Your task to perform on an android device: Search for "razer blackwidow" on ebay.com, select the first entry, and add it to the cart. Image 0: 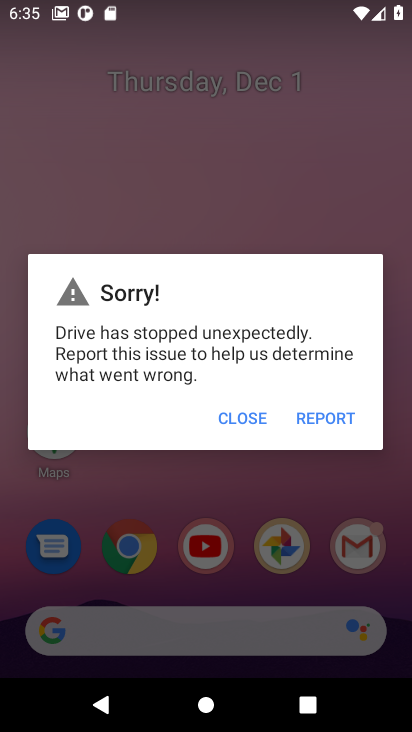
Step 0: press home button
Your task to perform on an android device: Search for "razer blackwidow" on ebay.com, select the first entry, and add it to the cart. Image 1: 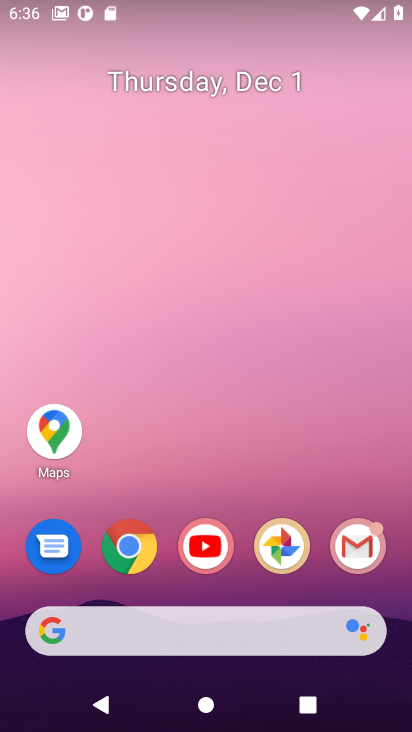
Step 1: click (132, 550)
Your task to perform on an android device: Search for "razer blackwidow" on ebay.com, select the first entry, and add it to the cart. Image 2: 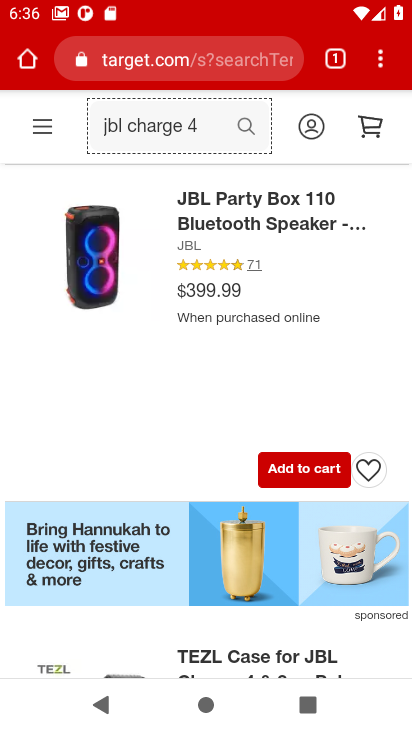
Step 2: click (171, 56)
Your task to perform on an android device: Search for "razer blackwidow" on ebay.com, select the first entry, and add it to the cart. Image 3: 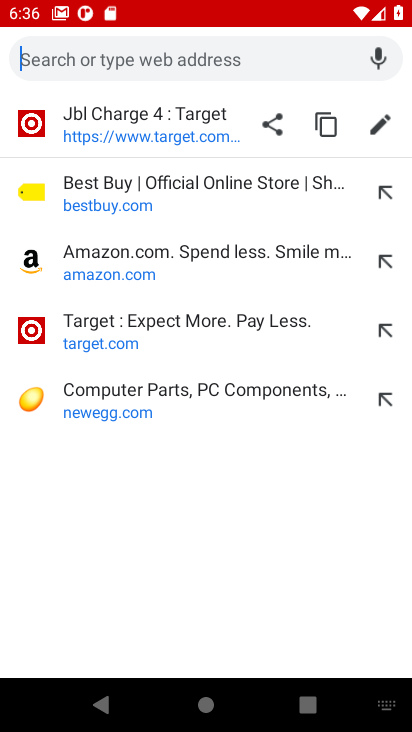
Step 3: type "ebay.com"
Your task to perform on an android device: Search for "razer blackwidow" on ebay.com, select the first entry, and add it to the cart. Image 4: 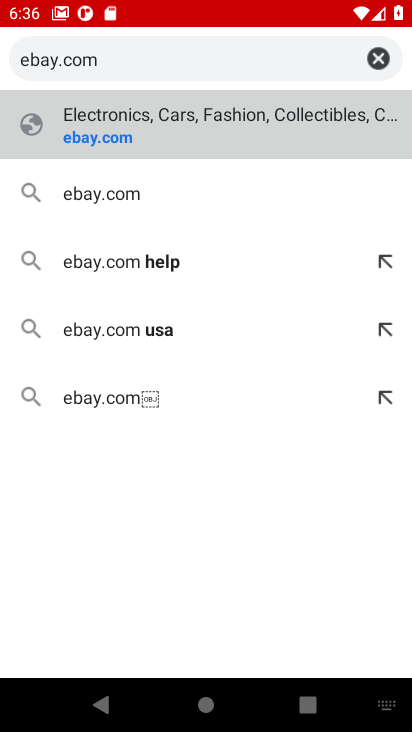
Step 4: click (93, 138)
Your task to perform on an android device: Search for "razer blackwidow" on ebay.com, select the first entry, and add it to the cart. Image 5: 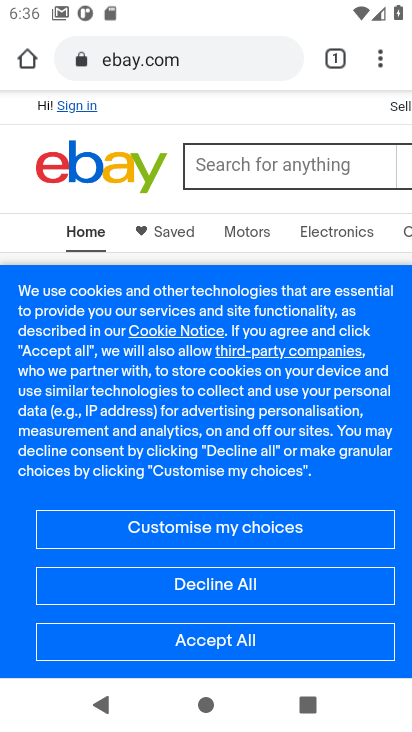
Step 5: drag from (339, 204) to (13, 240)
Your task to perform on an android device: Search for "razer blackwidow" on ebay.com, select the first entry, and add it to the cart. Image 6: 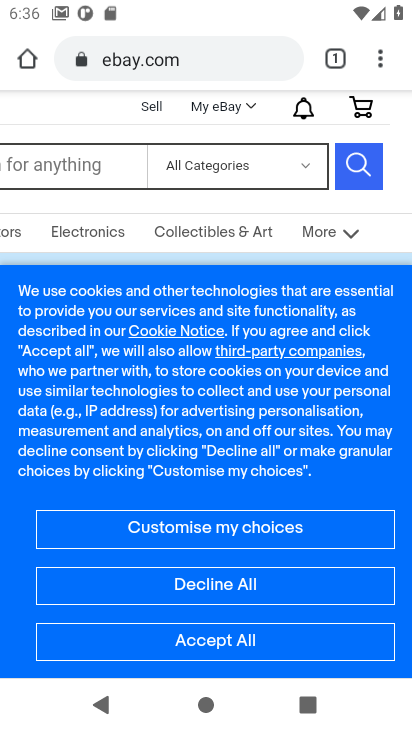
Step 6: click (48, 165)
Your task to perform on an android device: Search for "razer blackwidow" on ebay.com, select the first entry, and add it to the cart. Image 7: 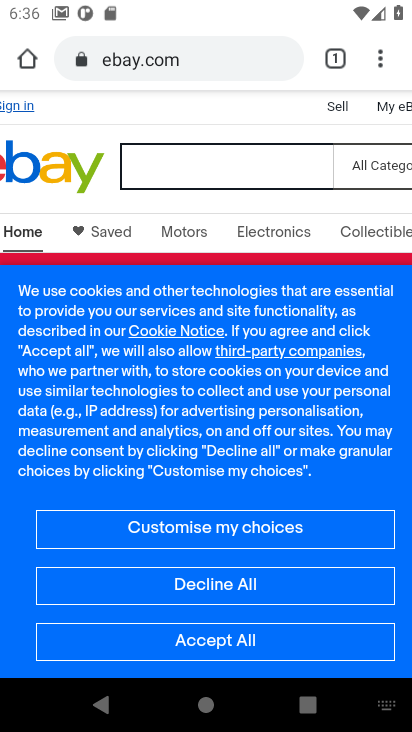
Step 7: type "razer blackwidow"
Your task to perform on an android device: Search for "razer blackwidow" on ebay.com, select the first entry, and add it to the cart. Image 8: 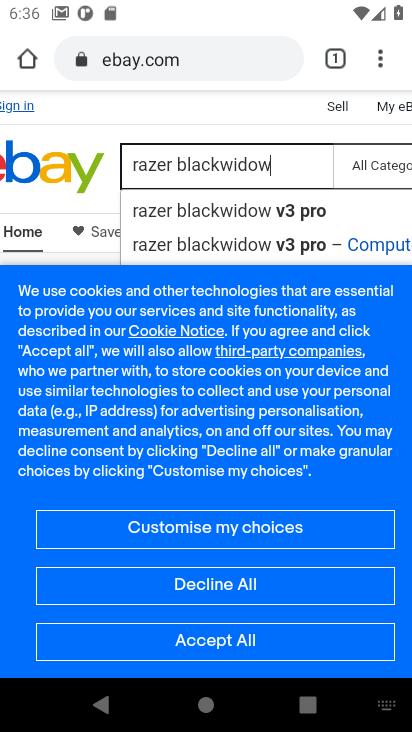
Step 8: drag from (379, 202) to (2, 227)
Your task to perform on an android device: Search for "razer blackwidow" on ebay.com, select the first entry, and add it to the cart. Image 9: 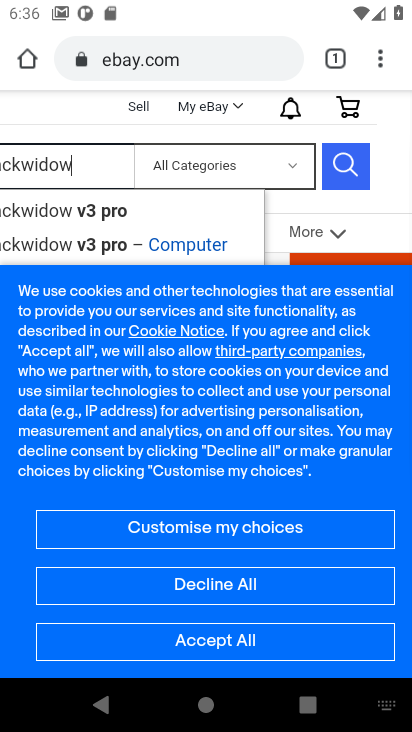
Step 9: click (335, 170)
Your task to perform on an android device: Search for "razer blackwidow" on ebay.com, select the first entry, and add it to the cart. Image 10: 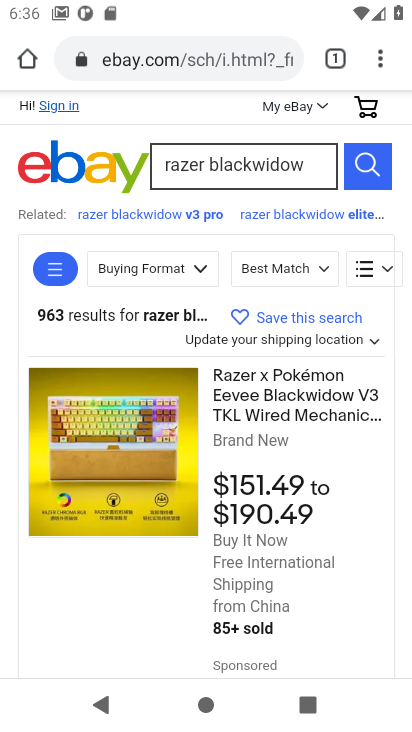
Step 10: drag from (195, 538) to (179, 317)
Your task to perform on an android device: Search for "razer blackwidow" on ebay.com, select the first entry, and add it to the cart. Image 11: 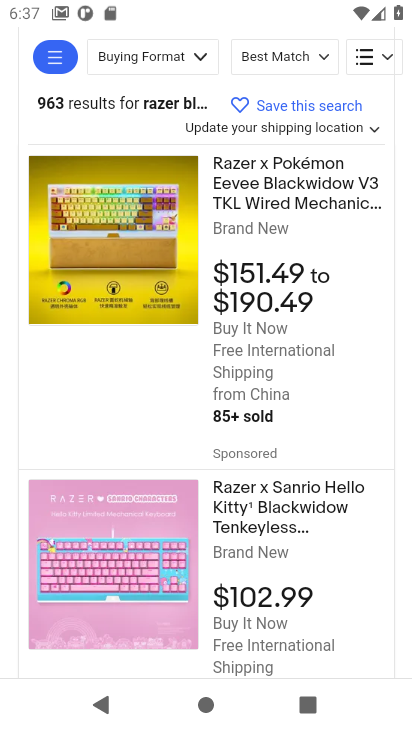
Step 11: click (190, 307)
Your task to perform on an android device: Search for "razer blackwidow" on ebay.com, select the first entry, and add it to the cart. Image 12: 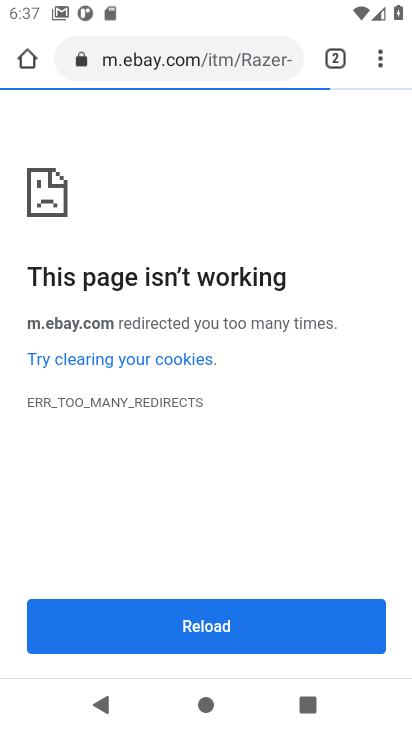
Step 12: task complete